Your task to perform on an android device: turn vacation reply on in the gmail app Image 0: 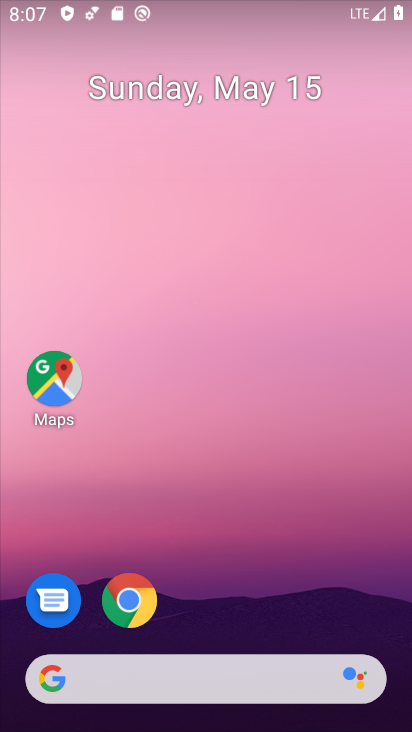
Step 0: drag from (186, 626) to (139, 69)
Your task to perform on an android device: turn vacation reply on in the gmail app Image 1: 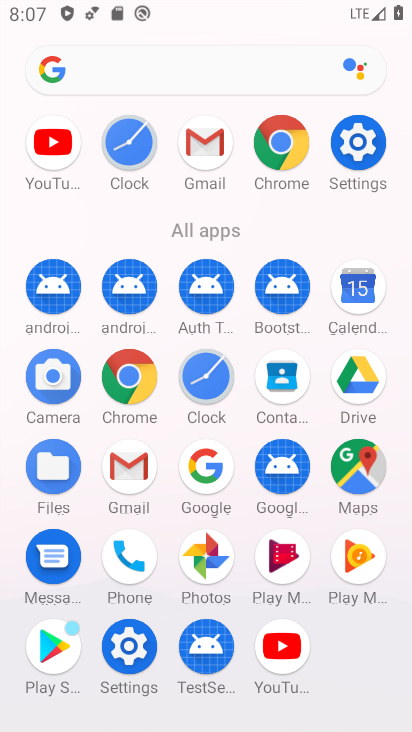
Step 1: click (210, 156)
Your task to perform on an android device: turn vacation reply on in the gmail app Image 2: 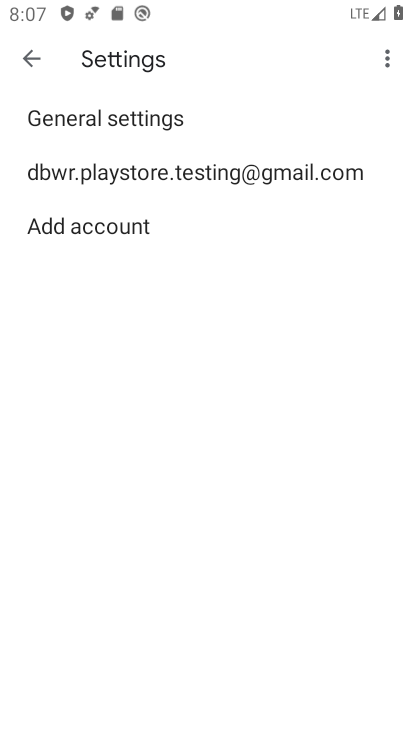
Step 2: click (194, 164)
Your task to perform on an android device: turn vacation reply on in the gmail app Image 3: 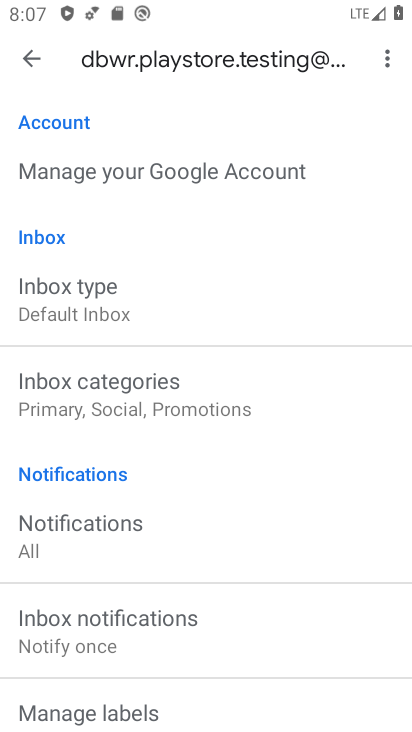
Step 3: drag from (202, 644) to (149, 130)
Your task to perform on an android device: turn vacation reply on in the gmail app Image 4: 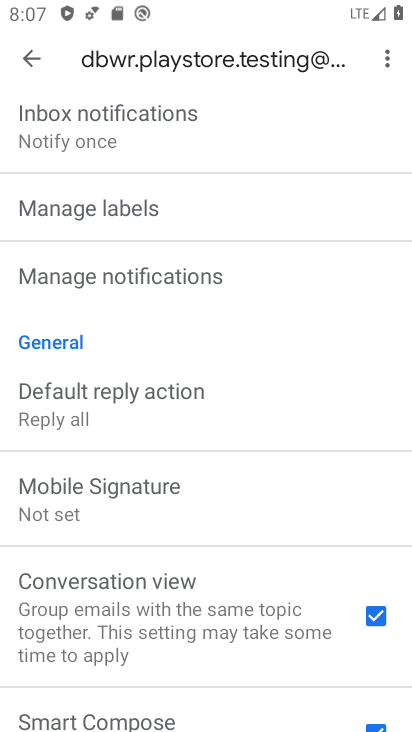
Step 4: drag from (176, 631) to (193, 258)
Your task to perform on an android device: turn vacation reply on in the gmail app Image 5: 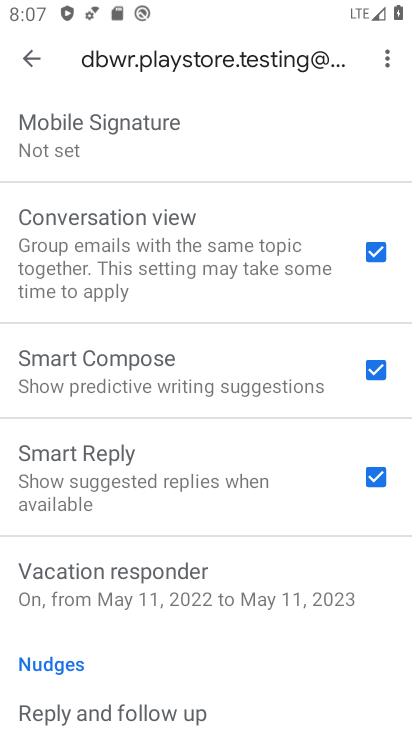
Step 5: click (119, 588)
Your task to perform on an android device: turn vacation reply on in the gmail app Image 6: 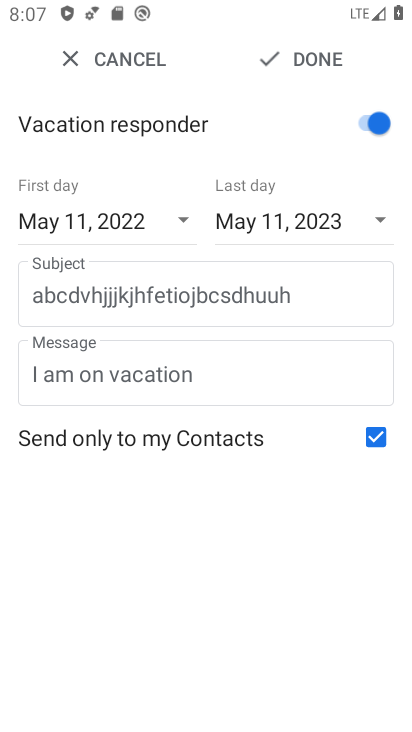
Step 6: task complete